Your task to perform on an android device: set the timer Image 0: 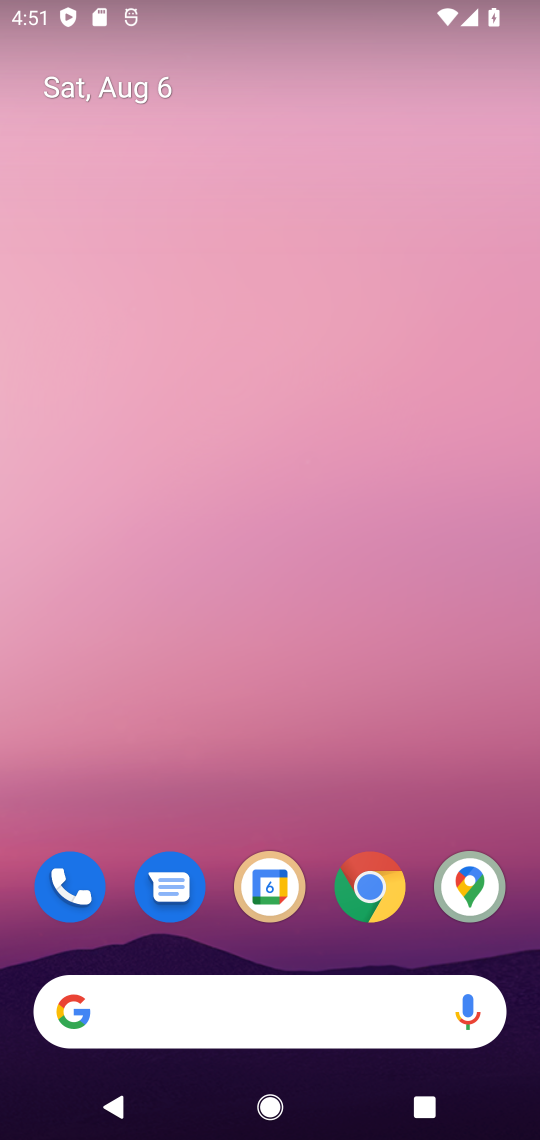
Step 0: drag from (285, 999) to (286, 312)
Your task to perform on an android device: set the timer Image 1: 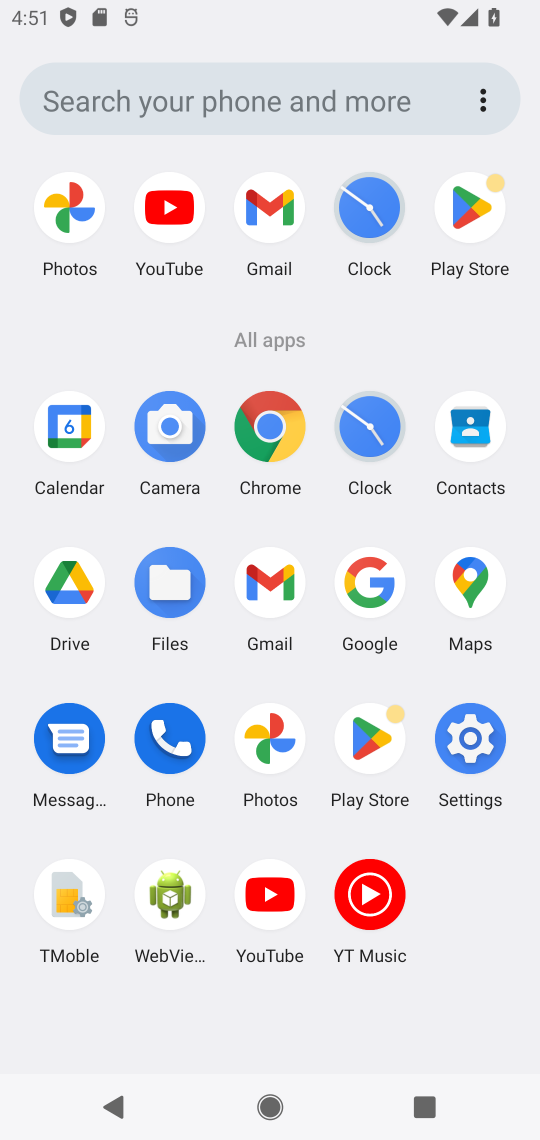
Step 1: click (390, 440)
Your task to perform on an android device: set the timer Image 2: 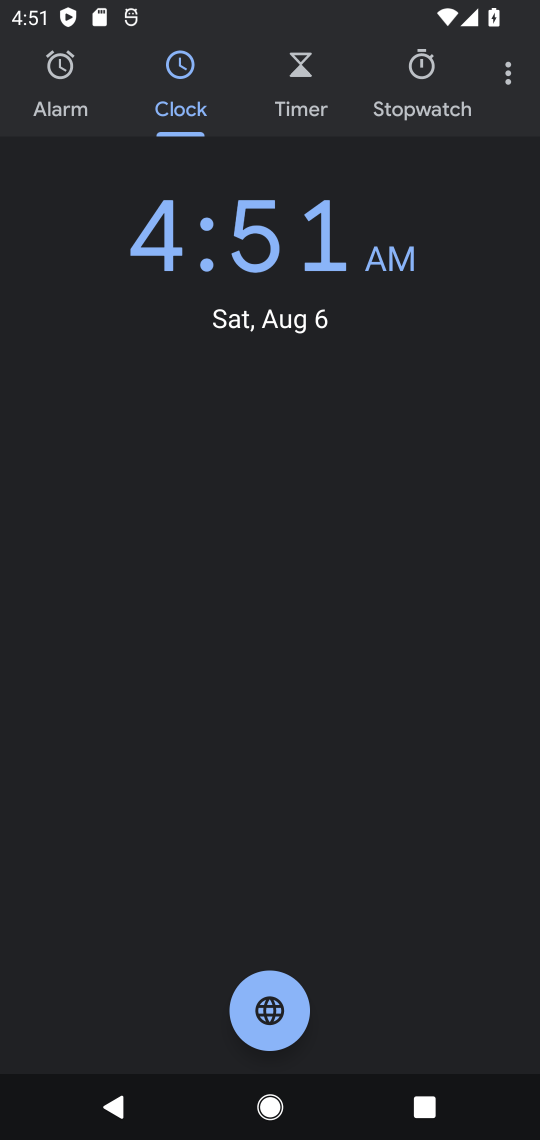
Step 2: click (312, 107)
Your task to perform on an android device: set the timer Image 3: 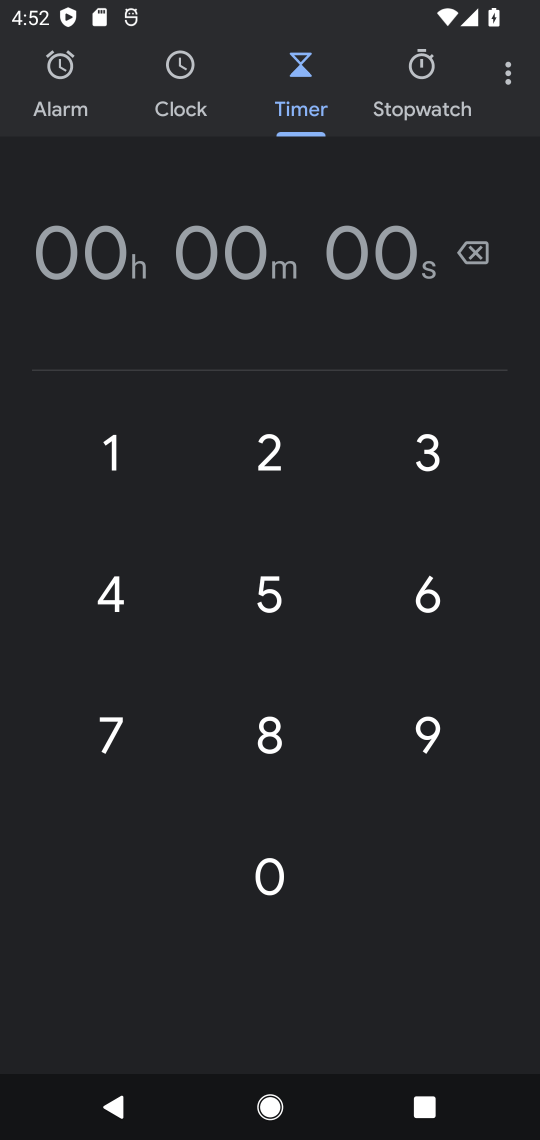
Step 3: drag from (275, 634) to (265, 721)
Your task to perform on an android device: set the timer Image 4: 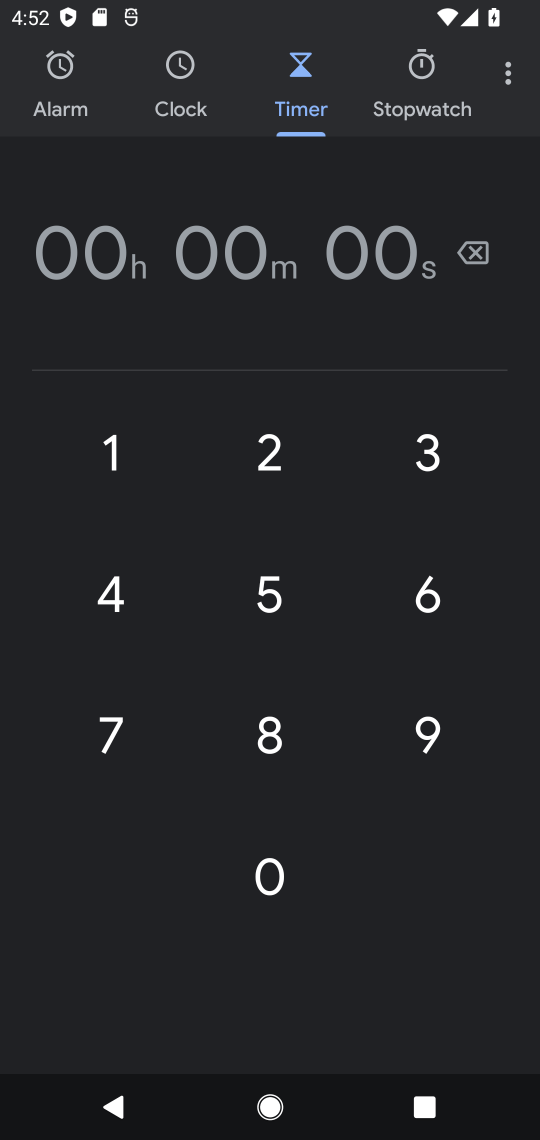
Step 4: click (410, 726)
Your task to perform on an android device: set the timer Image 5: 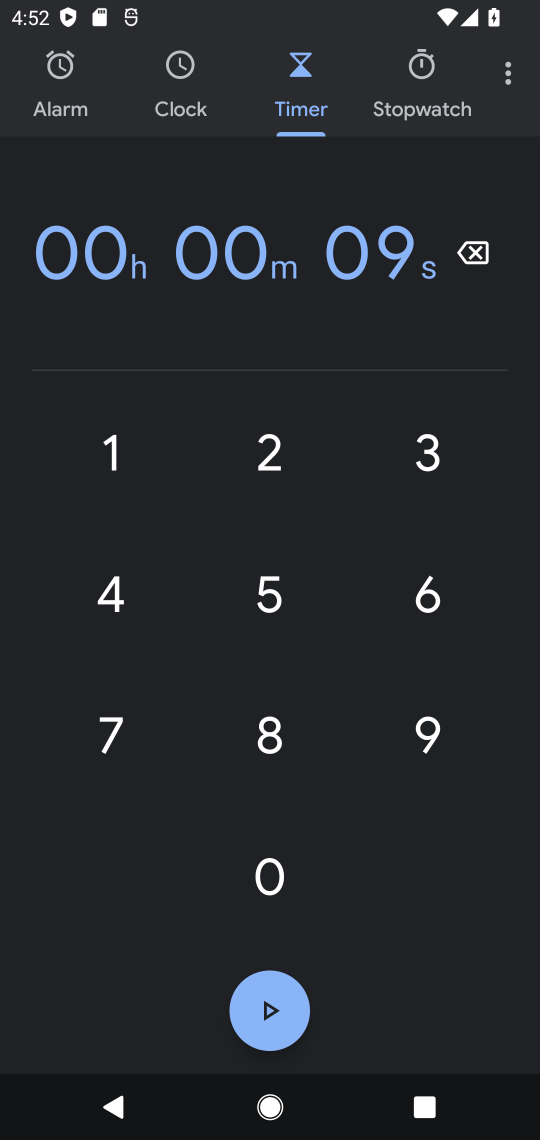
Step 5: click (149, 600)
Your task to perform on an android device: set the timer Image 6: 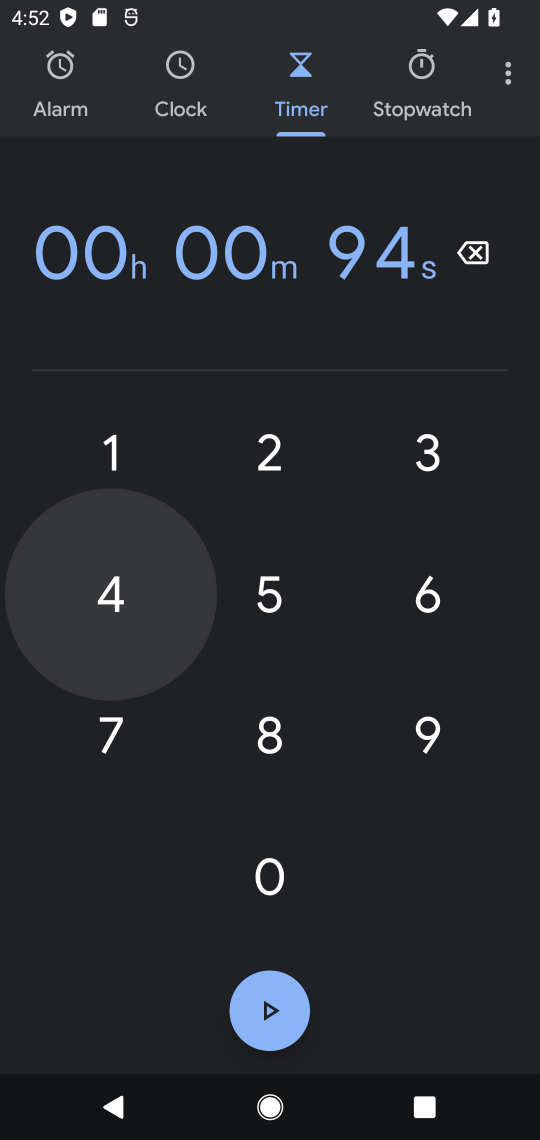
Step 6: click (265, 1026)
Your task to perform on an android device: set the timer Image 7: 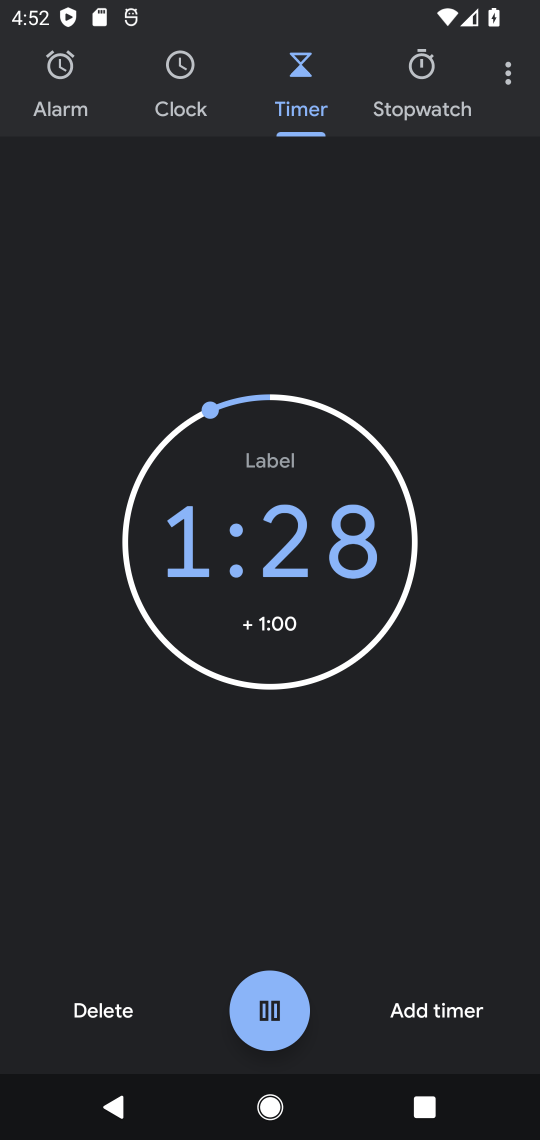
Step 7: task complete